Your task to perform on an android device: See recent photos Image 0: 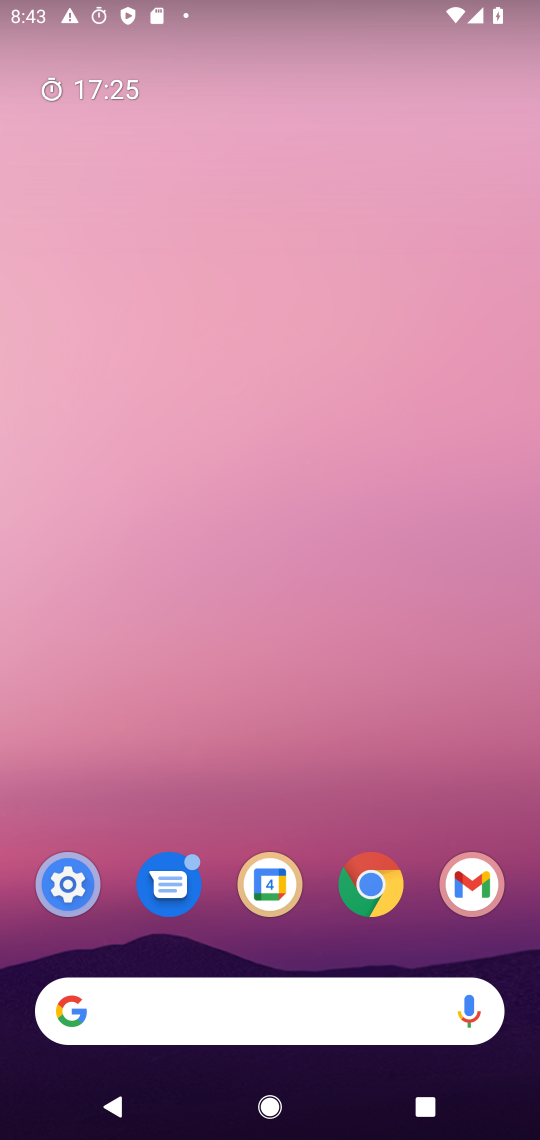
Step 0: press home button
Your task to perform on an android device: See recent photos Image 1: 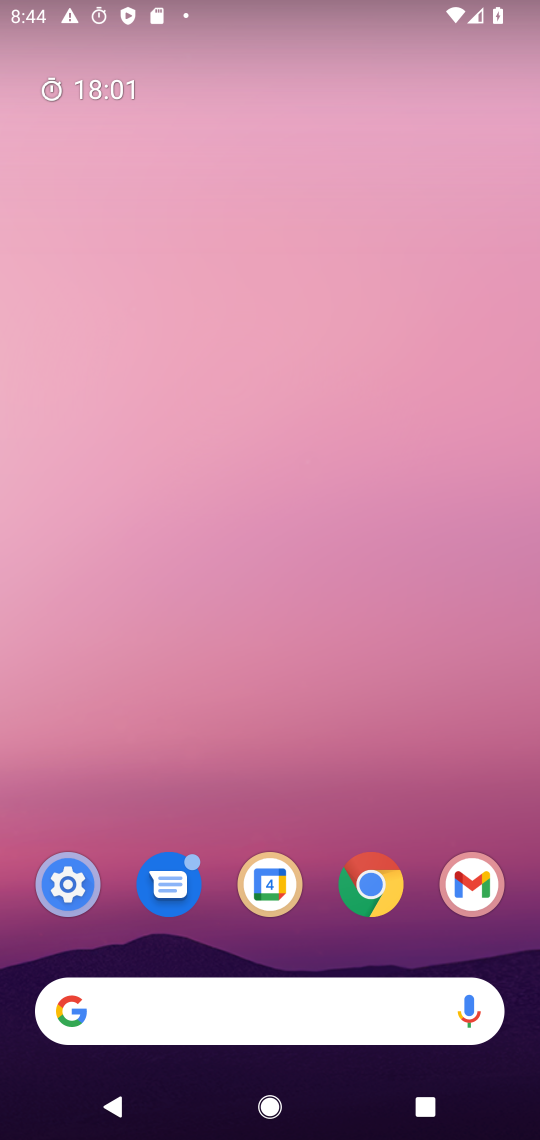
Step 1: drag from (268, 867) to (499, 758)
Your task to perform on an android device: See recent photos Image 2: 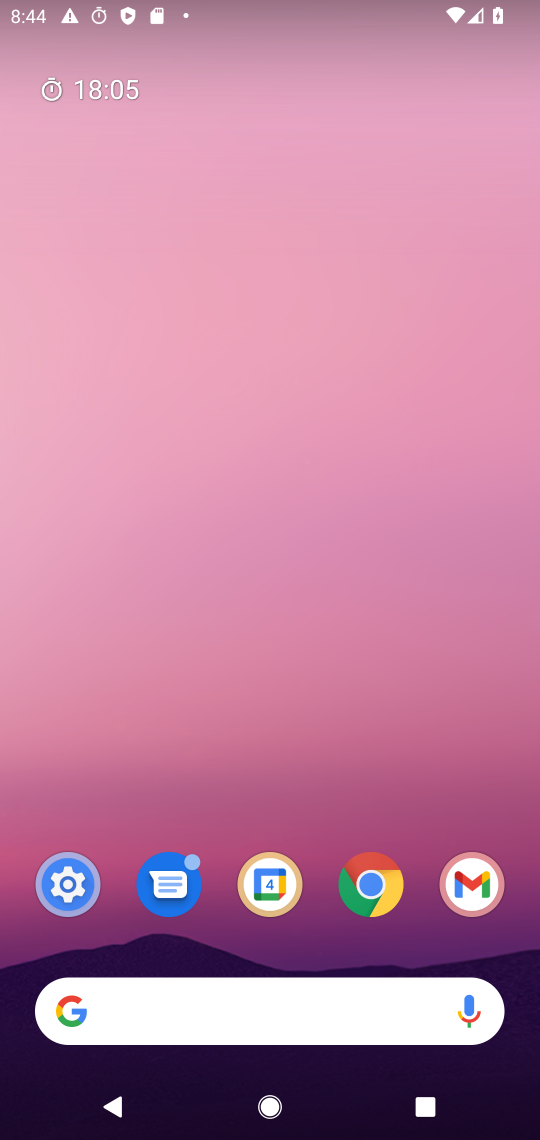
Step 2: drag from (372, 908) to (413, 52)
Your task to perform on an android device: See recent photos Image 3: 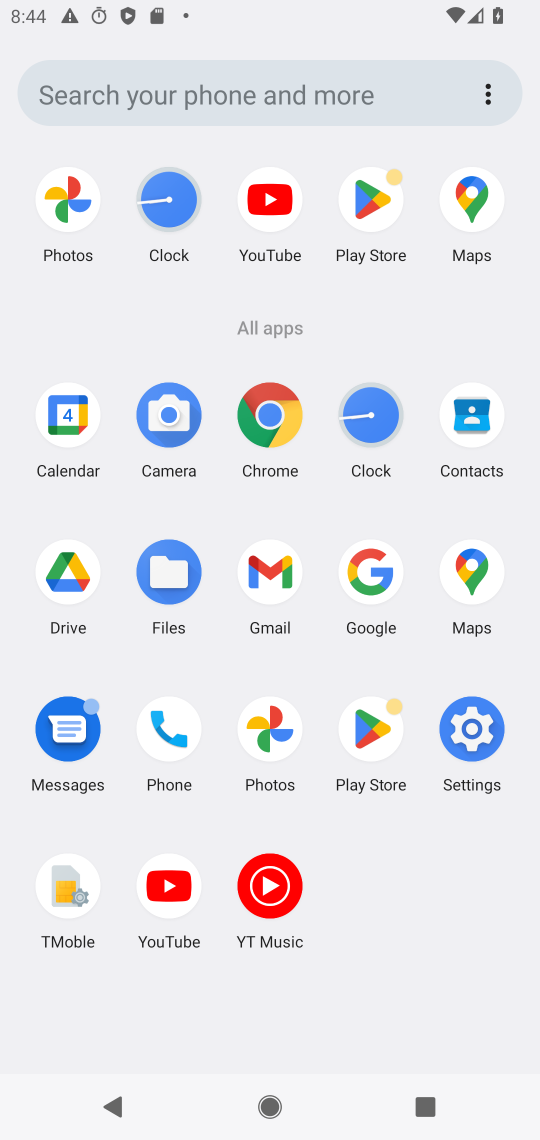
Step 3: click (262, 734)
Your task to perform on an android device: See recent photos Image 4: 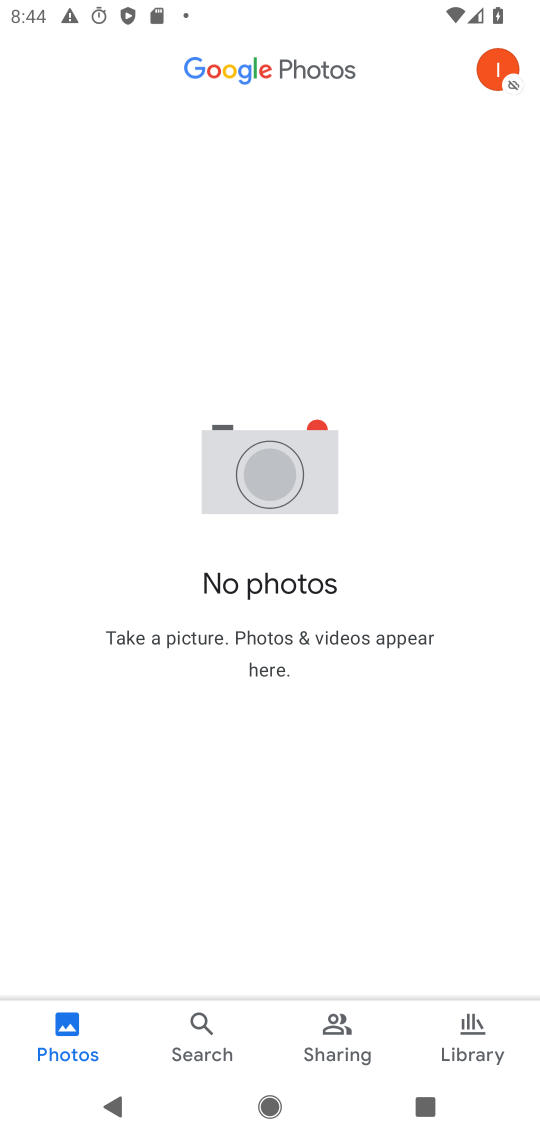
Step 4: task complete